Your task to perform on an android device: Go to Google maps Image 0: 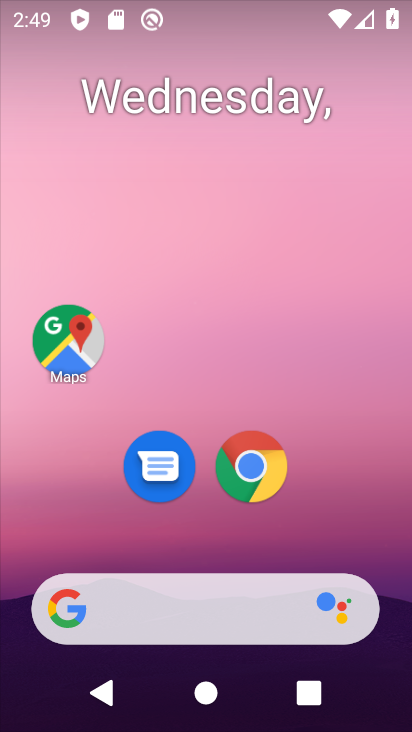
Step 0: click (71, 341)
Your task to perform on an android device: Go to Google maps Image 1: 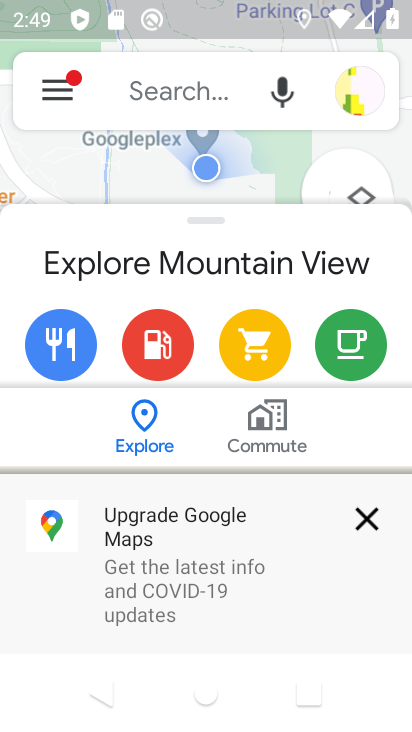
Step 1: click (368, 513)
Your task to perform on an android device: Go to Google maps Image 2: 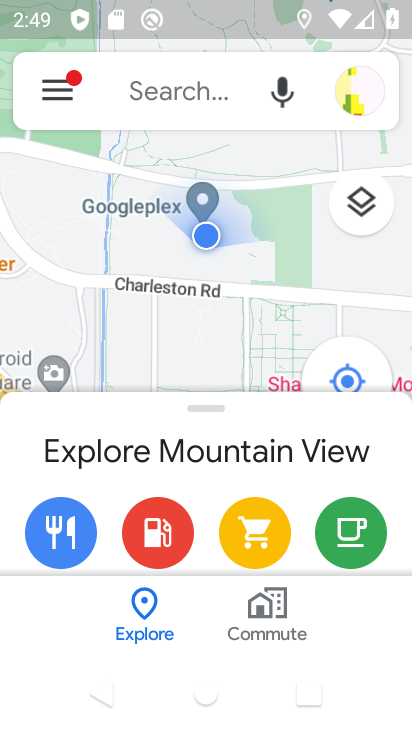
Step 2: task complete